Your task to perform on an android device: read, delete, or share a saved page in the chrome app Image 0: 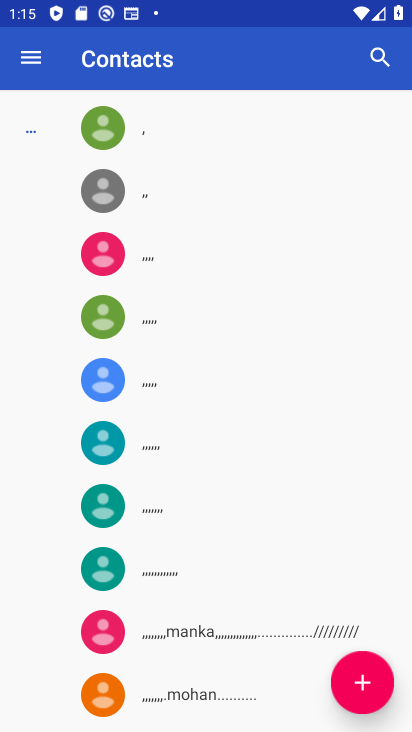
Step 0: press home button
Your task to perform on an android device: read, delete, or share a saved page in the chrome app Image 1: 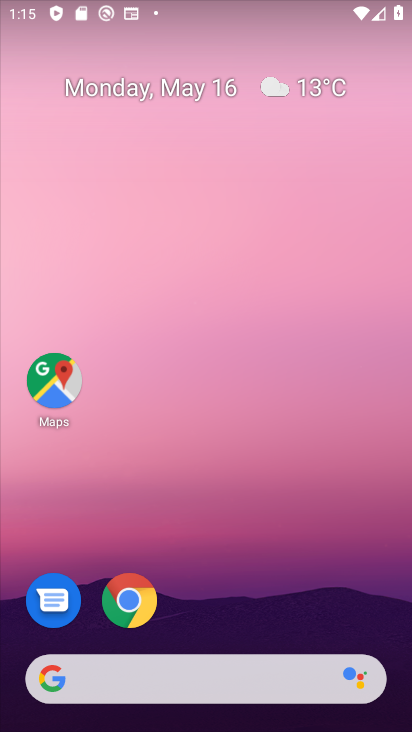
Step 1: click (148, 607)
Your task to perform on an android device: read, delete, or share a saved page in the chrome app Image 2: 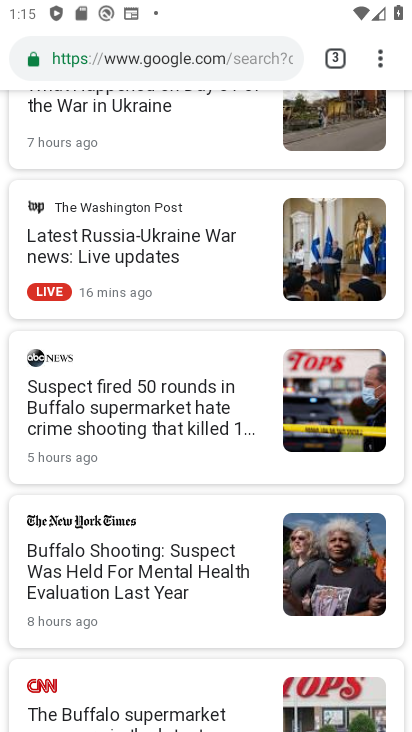
Step 2: click (381, 56)
Your task to perform on an android device: read, delete, or share a saved page in the chrome app Image 3: 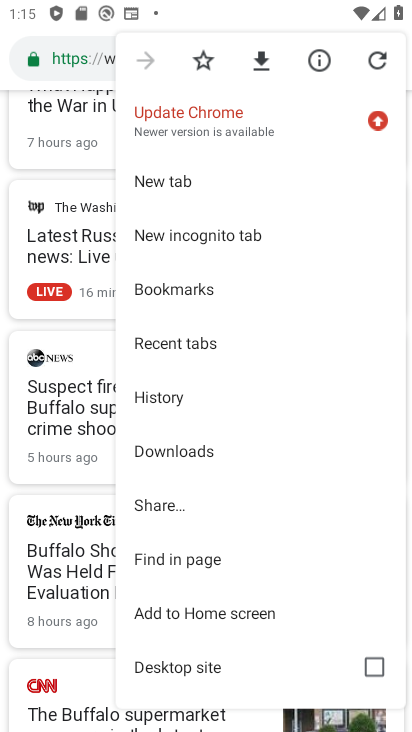
Step 3: click (175, 292)
Your task to perform on an android device: read, delete, or share a saved page in the chrome app Image 4: 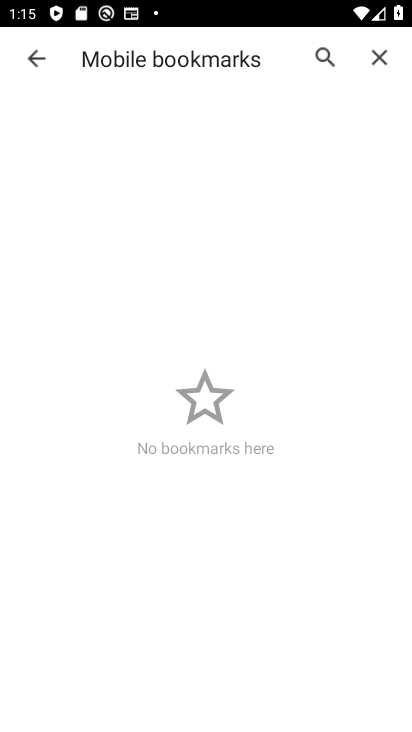
Step 4: task complete